Your task to perform on an android device: Open the web browser Image 0: 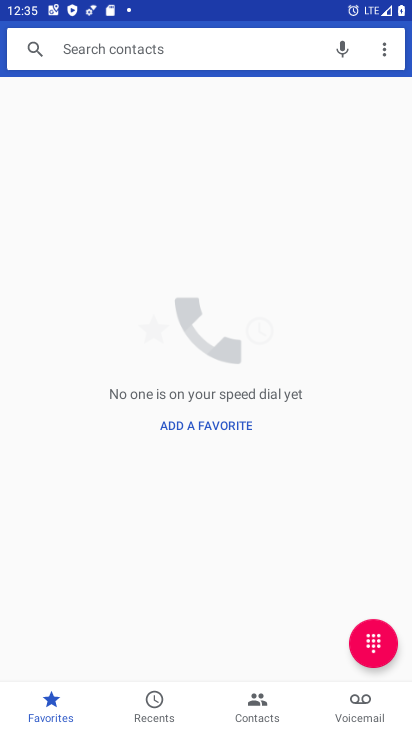
Step 0: press home button
Your task to perform on an android device: Open the web browser Image 1: 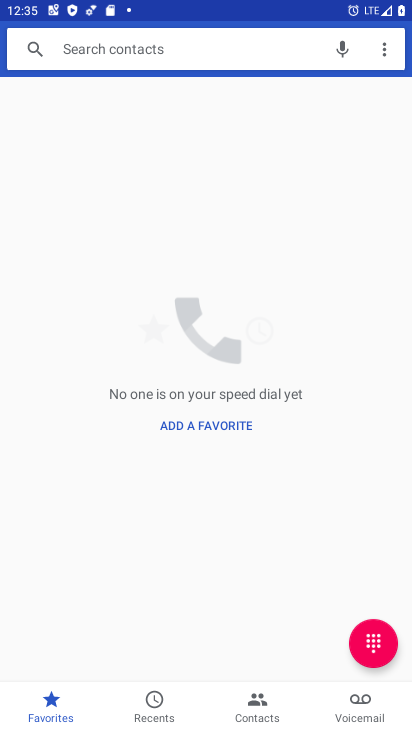
Step 1: press home button
Your task to perform on an android device: Open the web browser Image 2: 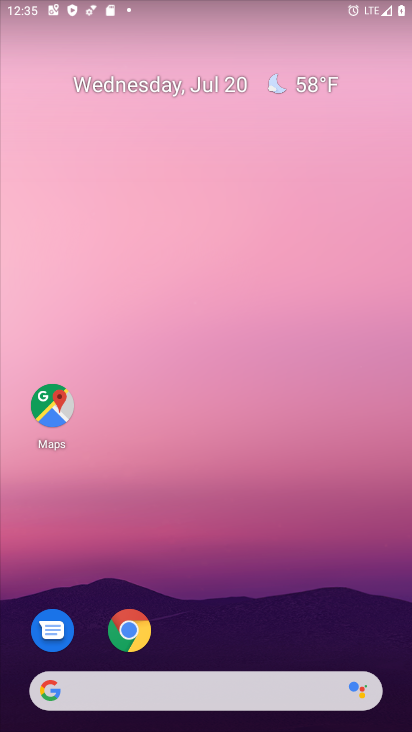
Step 2: drag from (189, 692) to (169, 128)
Your task to perform on an android device: Open the web browser Image 3: 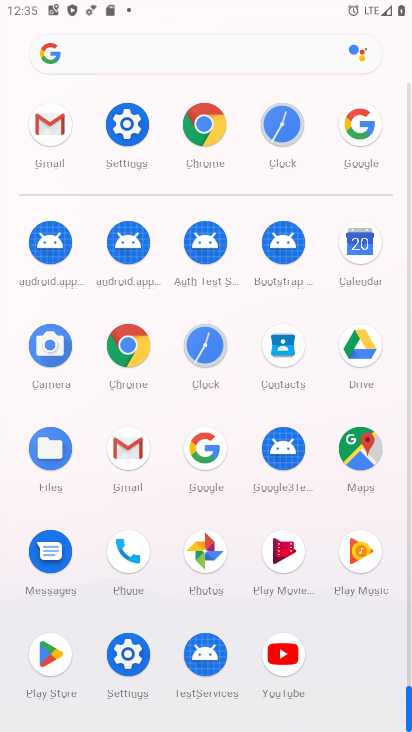
Step 3: drag from (216, 486) to (247, 265)
Your task to perform on an android device: Open the web browser Image 4: 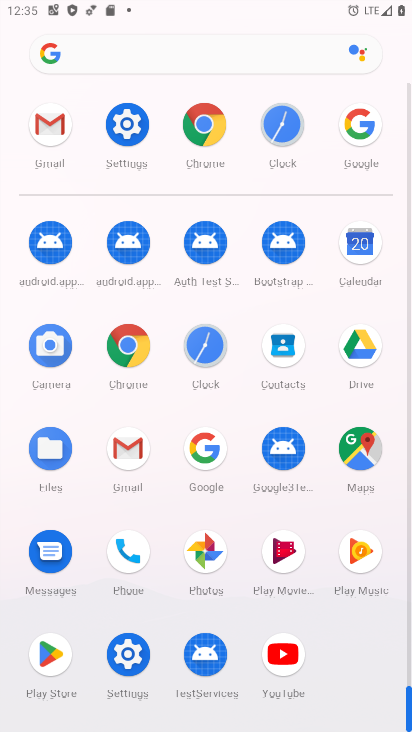
Step 4: click (214, 124)
Your task to perform on an android device: Open the web browser Image 5: 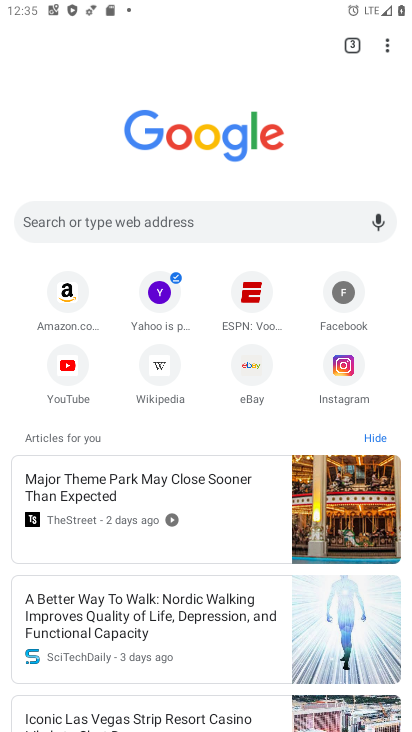
Step 5: task complete